Your task to perform on an android device: What's the weather going to be tomorrow? Image 0: 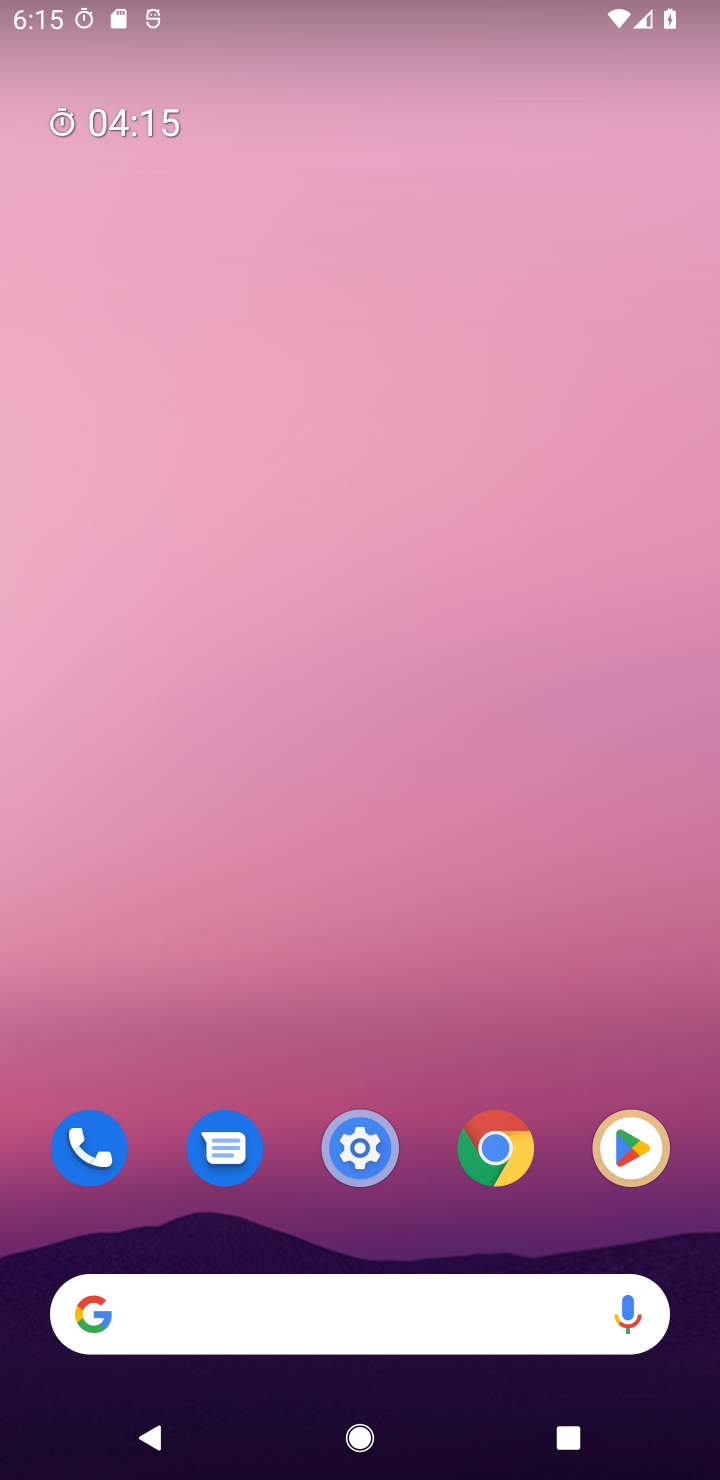
Step 0: click (297, 1338)
Your task to perform on an android device: What's the weather going to be tomorrow? Image 1: 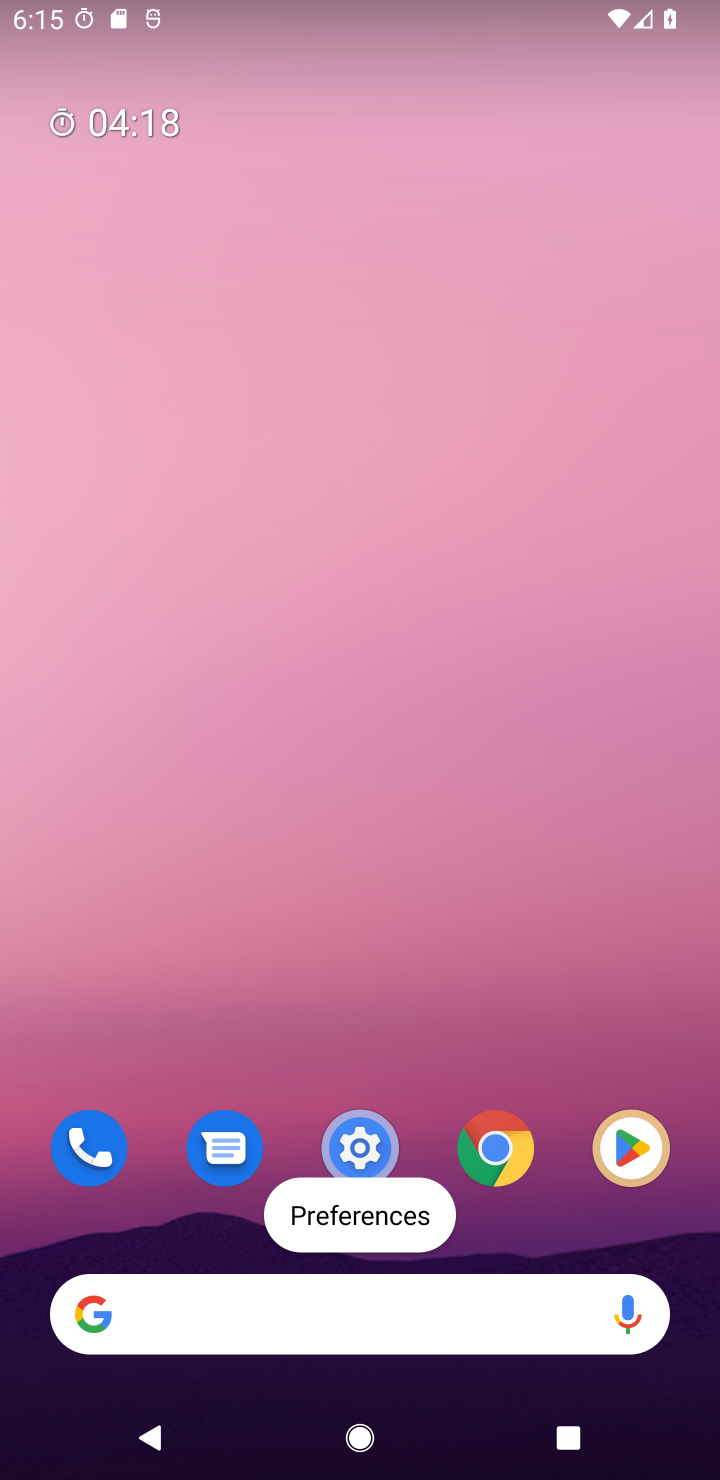
Step 1: click (346, 1301)
Your task to perform on an android device: What's the weather going to be tomorrow? Image 2: 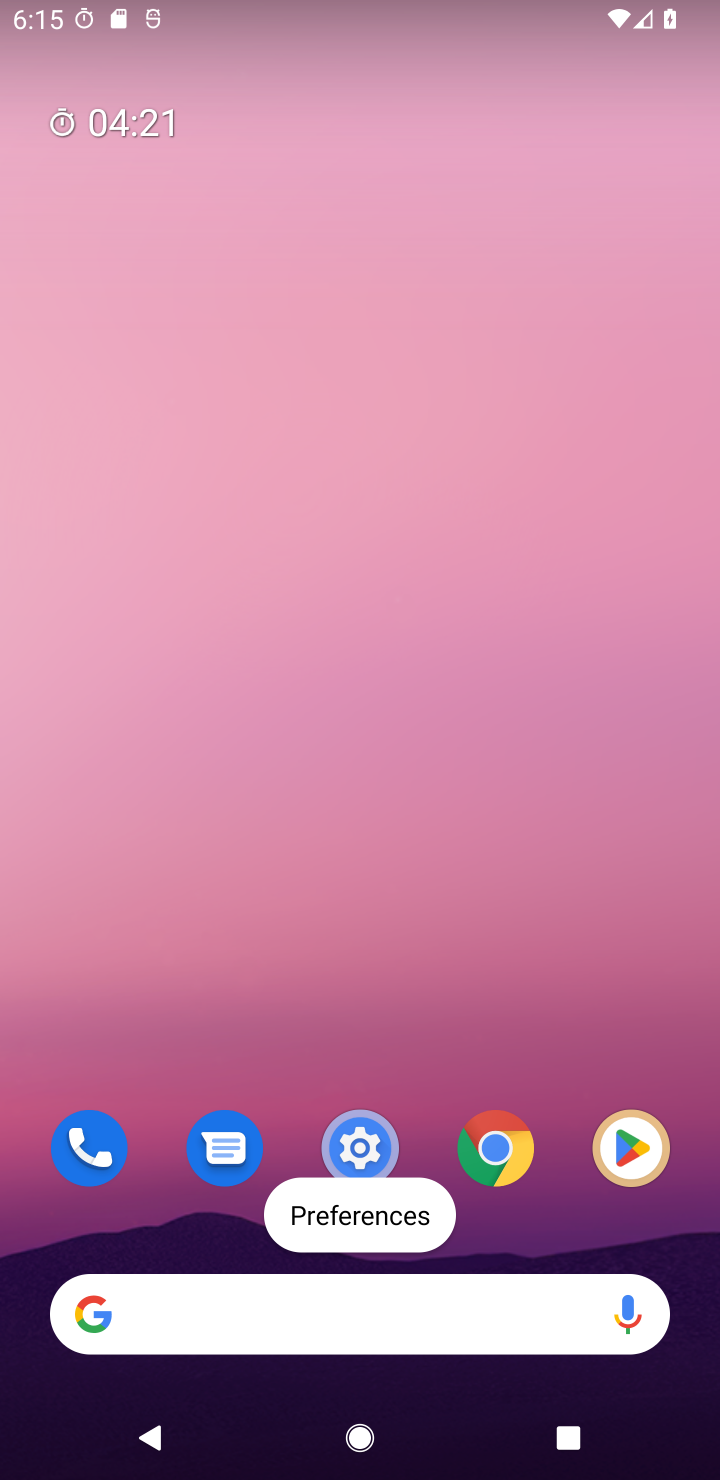
Step 2: click (346, 1303)
Your task to perform on an android device: What's the weather going to be tomorrow? Image 3: 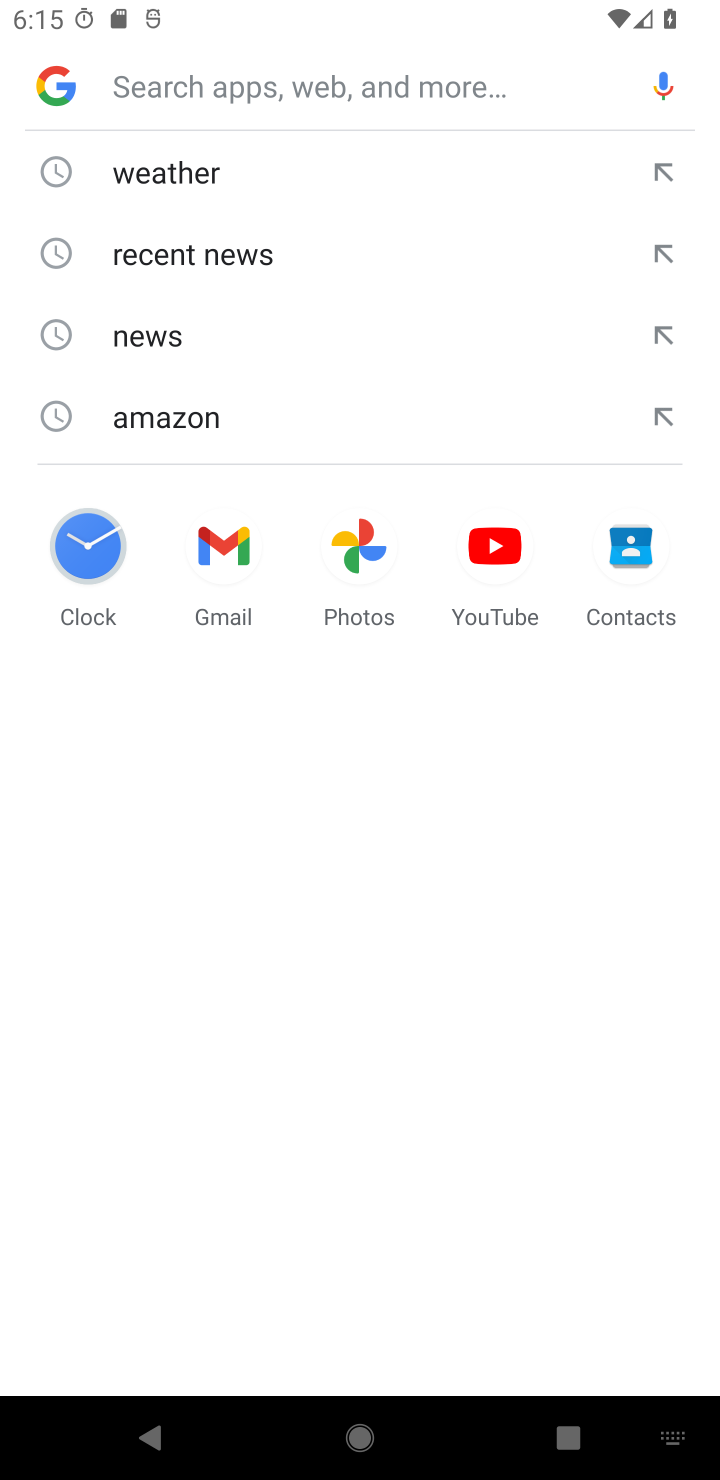
Step 3: click (180, 170)
Your task to perform on an android device: What's the weather going to be tomorrow? Image 4: 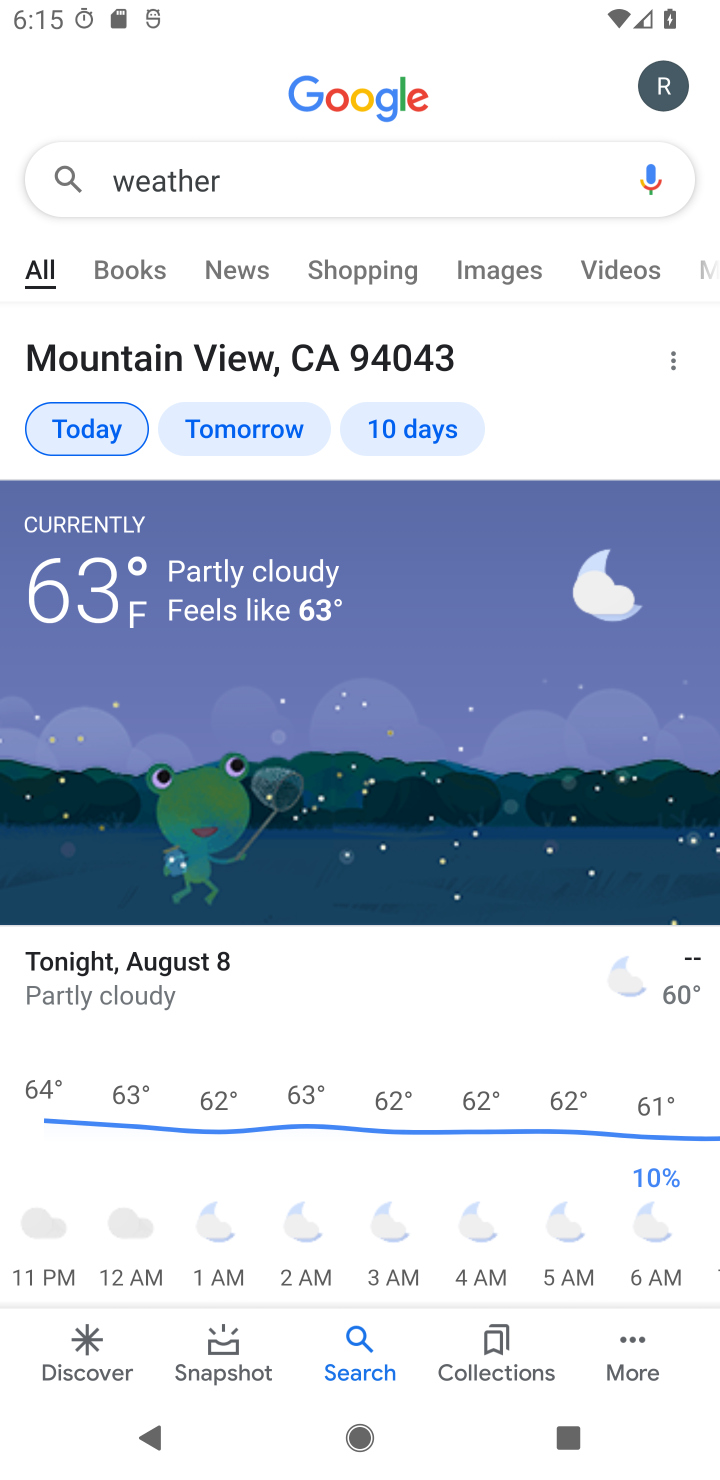
Step 4: click (268, 414)
Your task to perform on an android device: What's the weather going to be tomorrow? Image 5: 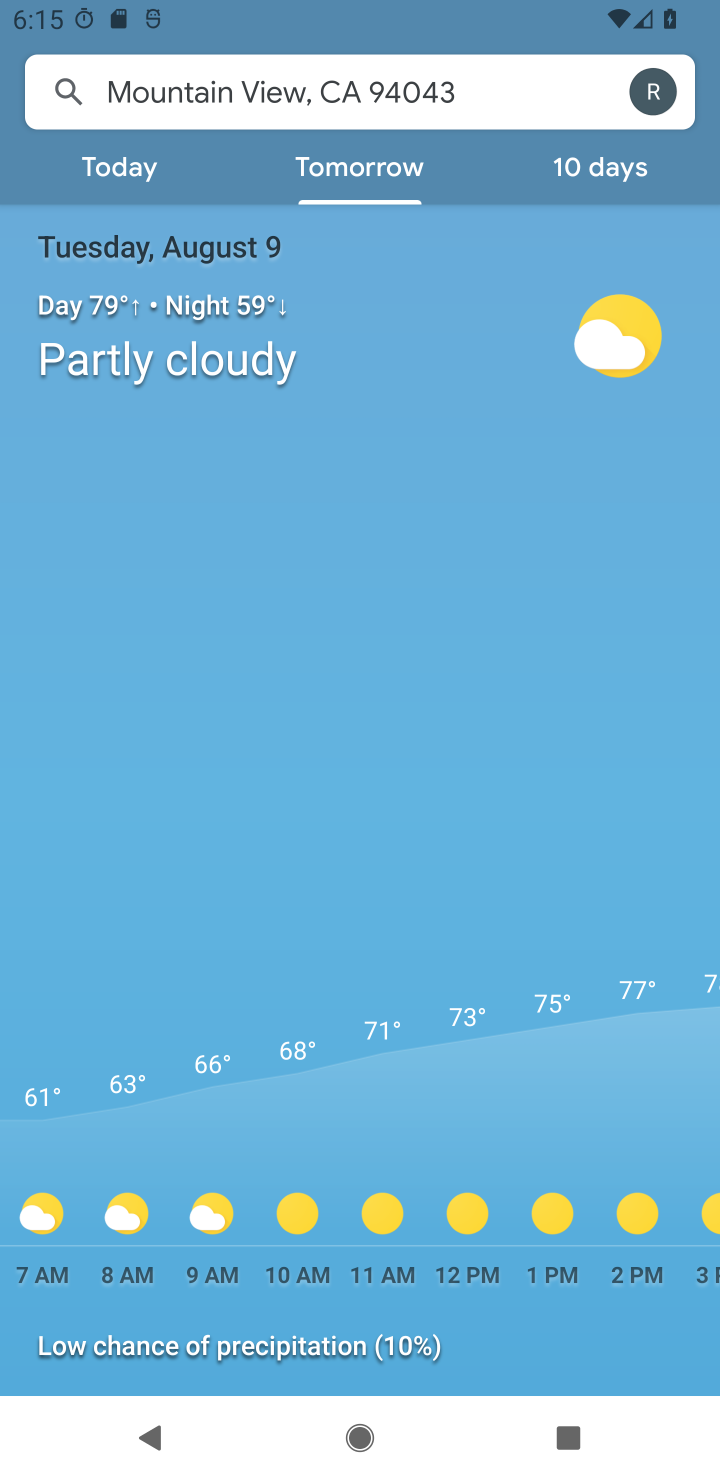
Step 5: task complete